Your task to perform on an android device: Open location settings Image 0: 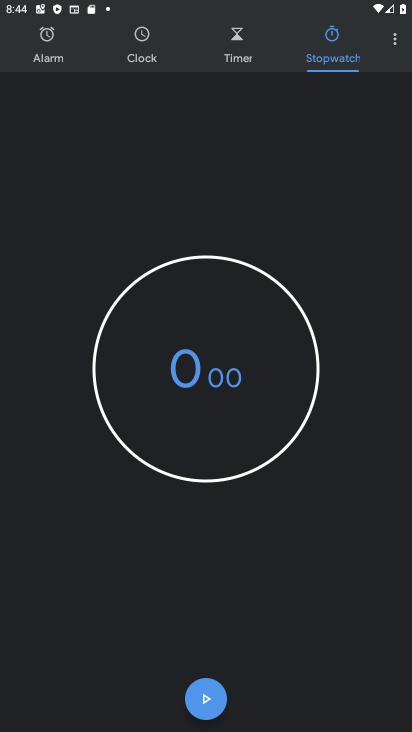
Step 0: click (391, 40)
Your task to perform on an android device: Open location settings Image 1: 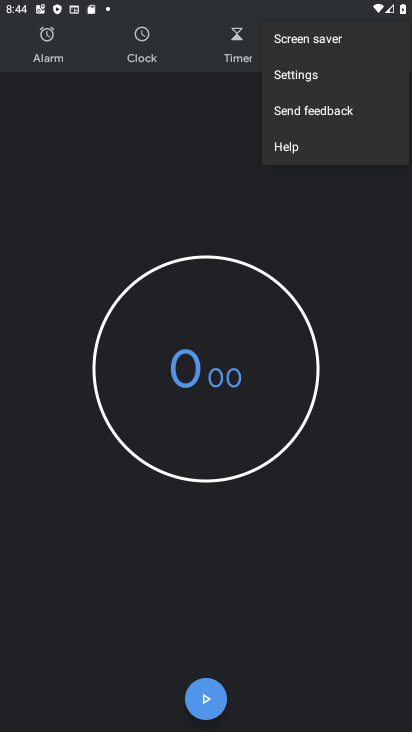
Step 1: click (301, 77)
Your task to perform on an android device: Open location settings Image 2: 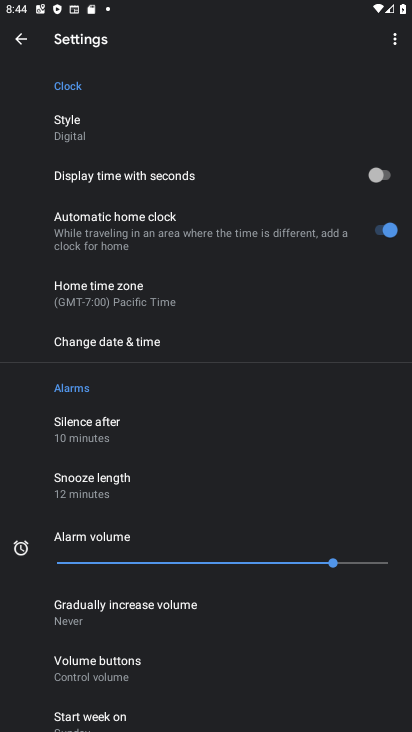
Step 2: drag from (171, 540) to (151, 232)
Your task to perform on an android device: Open location settings Image 3: 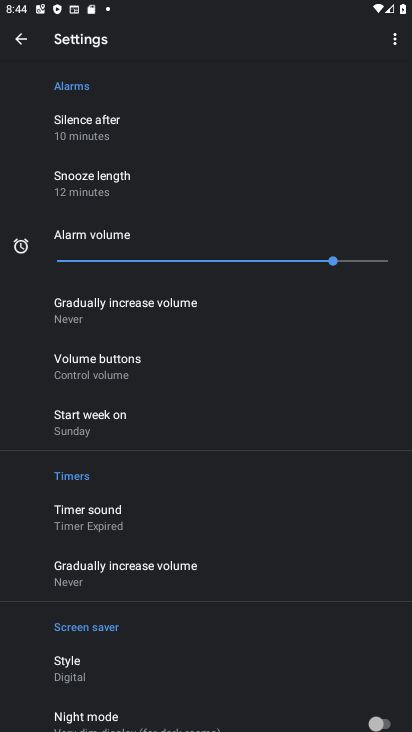
Step 3: drag from (220, 519) to (179, 110)
Your task to perform on an android device: Open location settings Image 4: 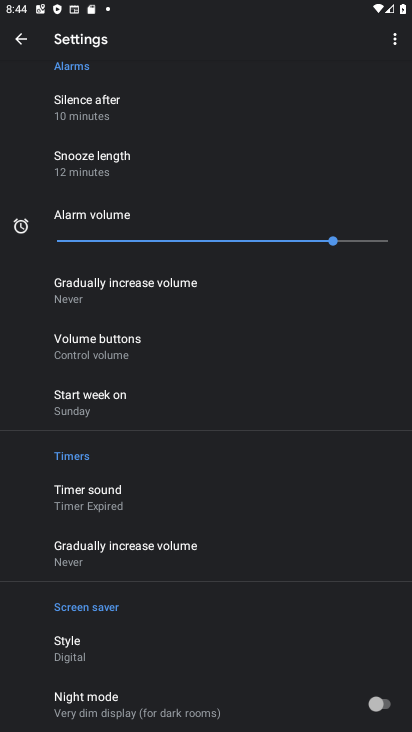
Step 4: press home button
Your task to perform on an android device: Open location settings Image 5: 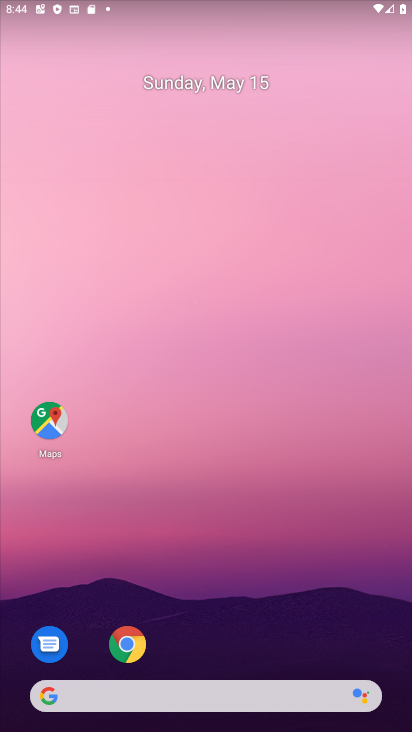
Step 5: drag from (219, 674) to (113, 2)
Your task to perform on an android device: Open location settings Image 6: 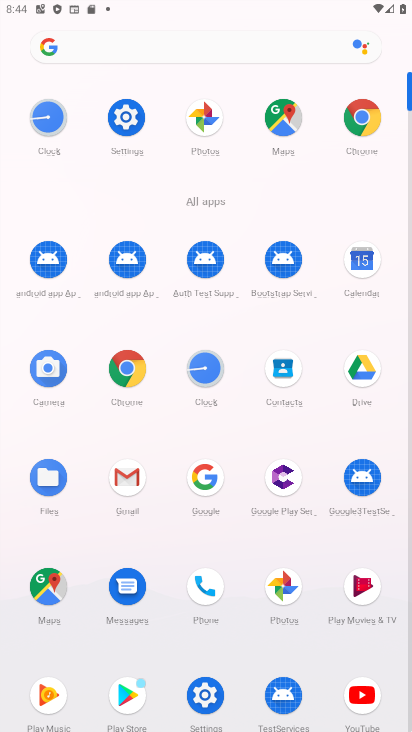
Step 6: click (117, 118)
Your task to perform on an android device: Open location settings Image 7: 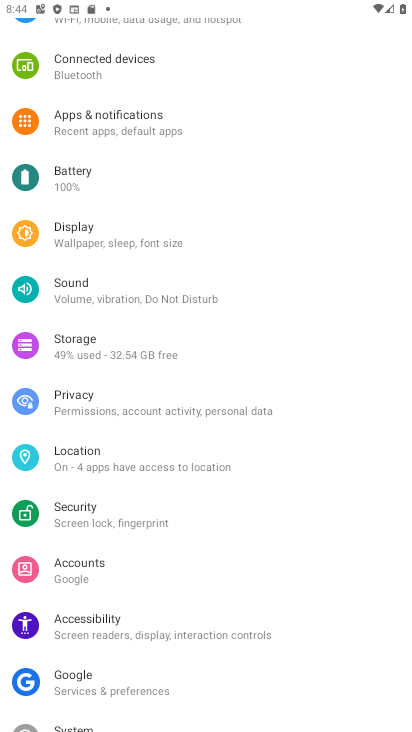
Step 7: click (108, 440)
Your task to perform on an android device: Open location settings Image 8: 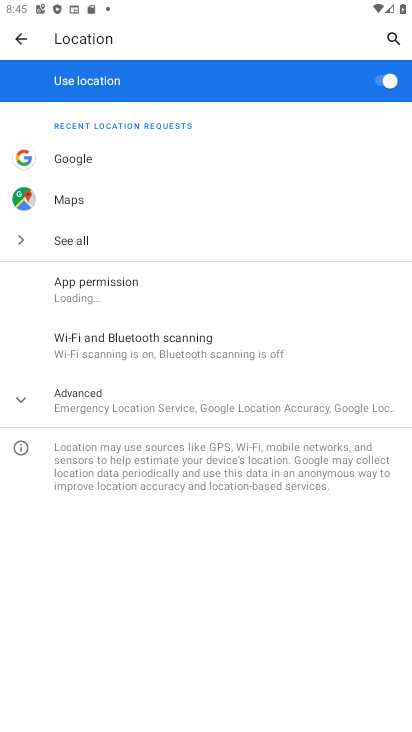
Step 8: task complete